Your task to perform on an android device: turn off priority inbox in the gmail app Image 0: 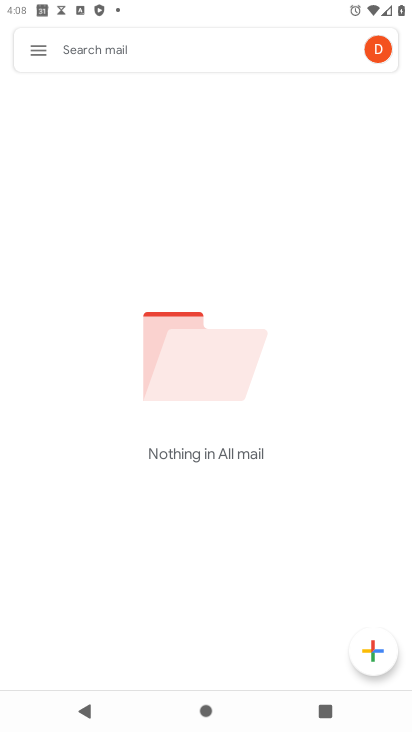
Step 0: click (32, 44)
Your task to perform on an android device: turn off priority inbox in the gmail app Image 1: 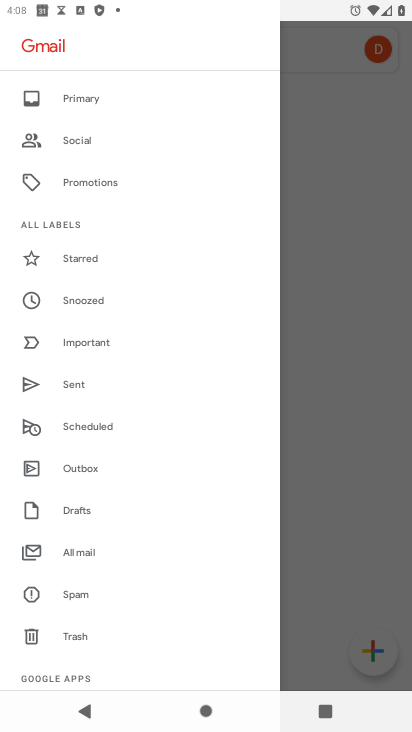
Step 1: drag from (149, 584) to (145, 205)
Your task to perform on an android device: turn off priority inbox in the gmail app Image 2: 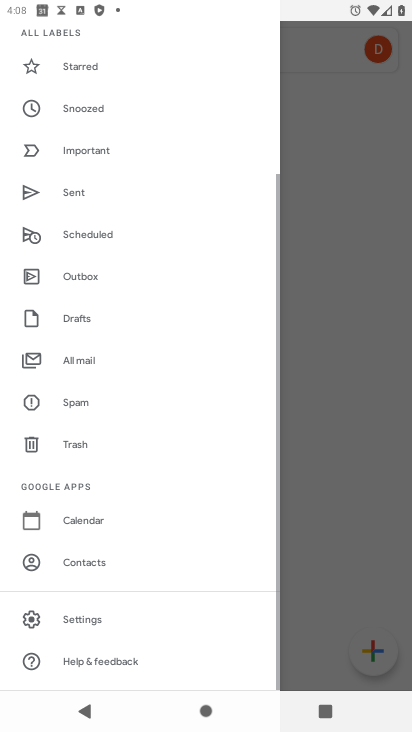
Step 2: click (138, 623)
Your task to perform on an android device: turn off priority inbox in the gmail app Image 3: 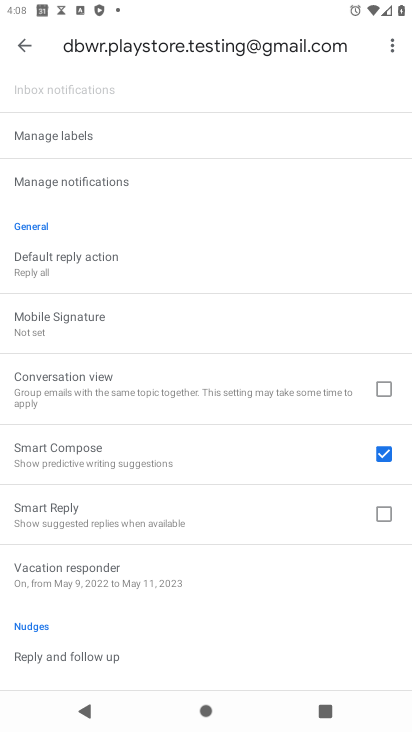
Step 3: drag from (144, 196) to (143, 636)
Your task to perform on an android device: turn off priority inbox in the gmail app Image 4: 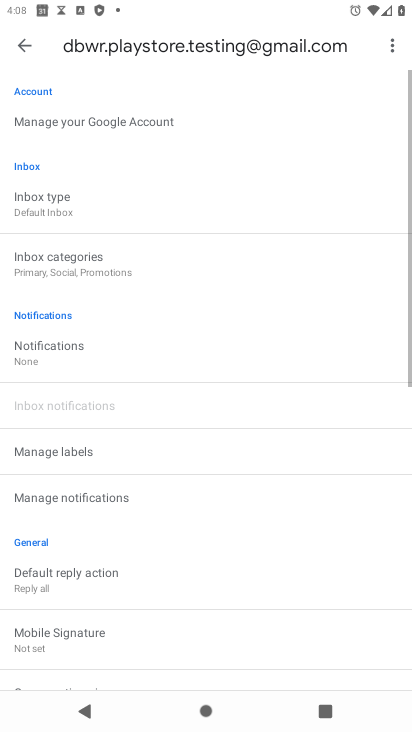
Step 4: click (92, 192)
Your task to perform on an android device: turn off priority inbox in the gmail app Image 5: 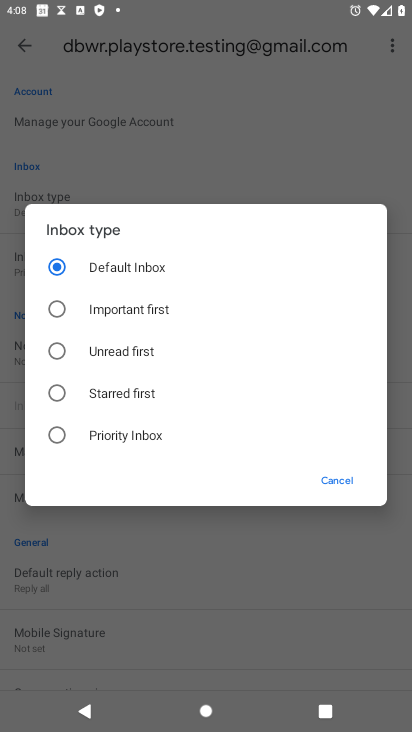
Step 5: click (115, 434)
Your task to perform on an android device: turn off priority inbox in the gmail app Image 6: 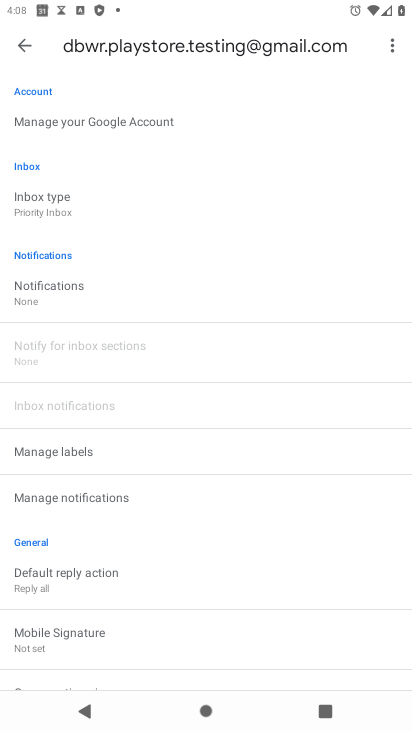
Step 6: click (71, 192)
Your task to perform on an android device: turn off priority inbox in the gmail app Image 7: 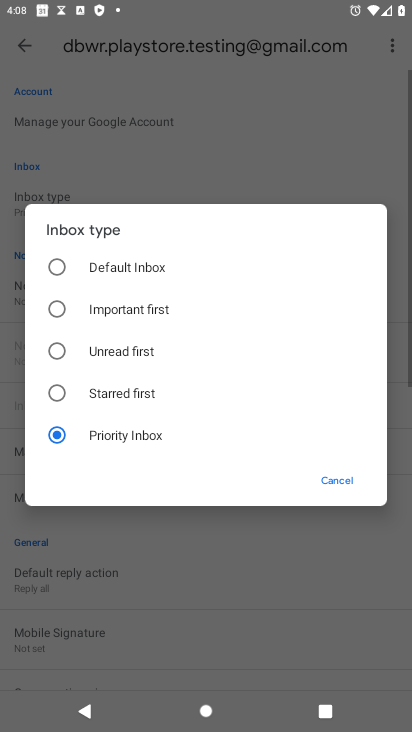
Step 7: click (119, 256)
Your task to perform on an android device: turn off priority inbox in the gmail app Image 8: 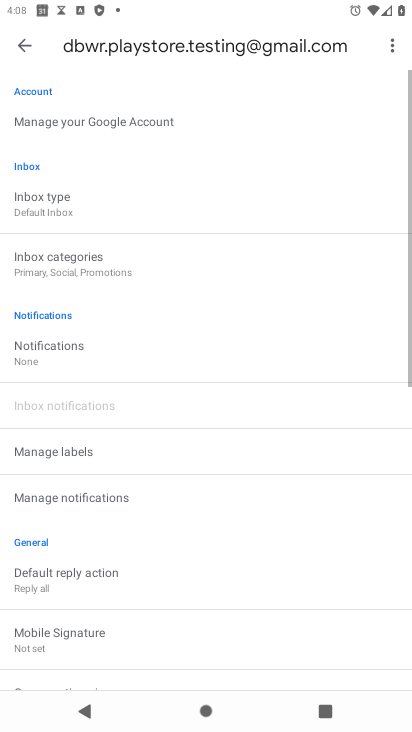
Step 8: task complete